Your task to perform on an android device: turn on improve location accuracy Image 0: 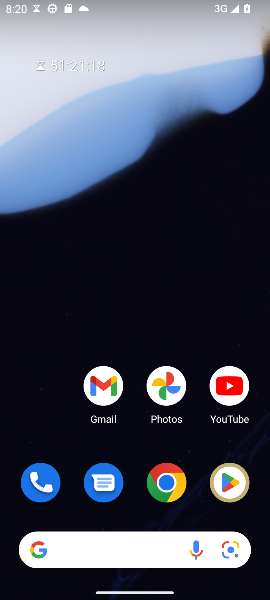
Step 0: drag from (92, 467) to (158, 0)
Your task to perform on an android device: turn on improve location accuracy Image 1: 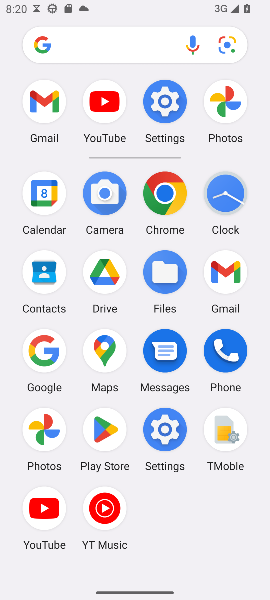
Step 1: click (164, 106)
Your task to perform on an android device: turn on improve location accuracy Image 2: 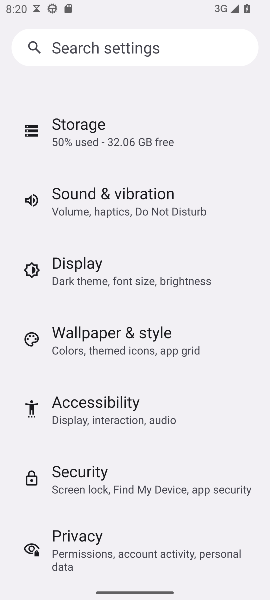
Step 2: drag from (162, 524) to (234, 193)
Your task to perform on an android device: turn on improve location accuracy Image 3: 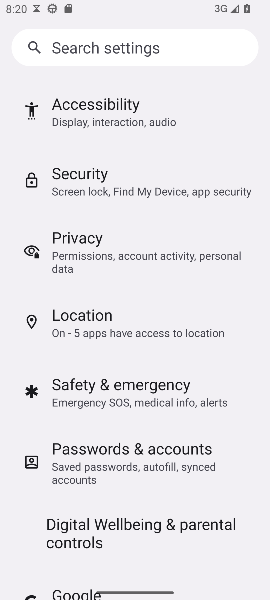
Step 3: click (100, 327)
Your task to perform on an android device: turn on improve location accuracy Image 4: 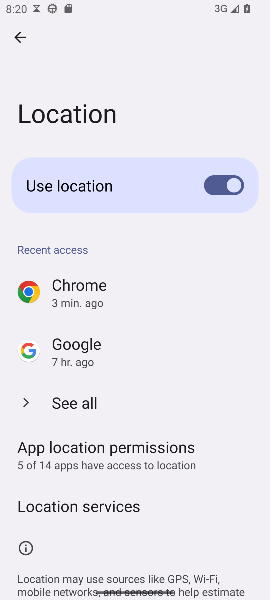
Step 4: task complete